Your task to perform on an android device: Open the Play Movies app and select the watchlist tab. Image 0: 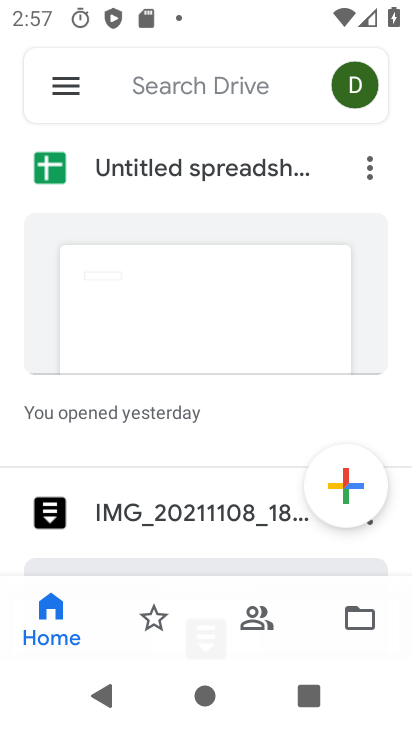
Step 0: press home button
Your task to perform on an android device: Open the Play Movies app and select the watchlist tab. Image 1: 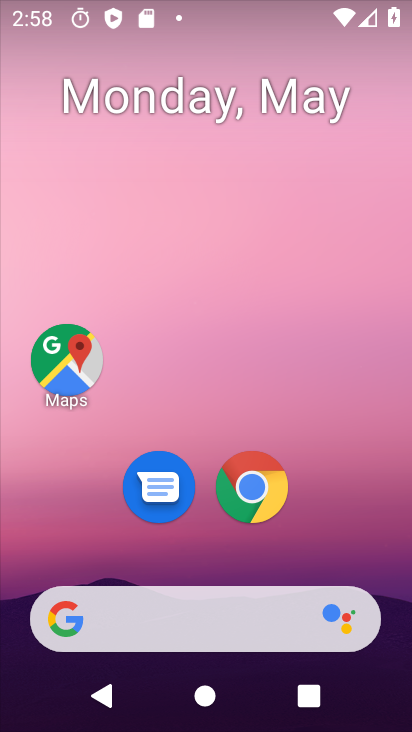
Step 1: drag from (212, 562) to (232, 57)
Your task to perform on an android device: Open the Play Movies app and select the watchlist tab. Image 2: 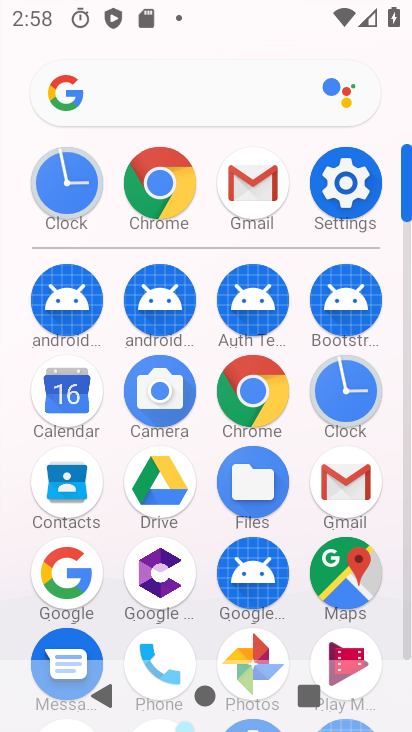
Step 2: drag from (322, 618) to (322, 394)
Your task to perform on an android device: Open the Play Movies app and select the watchlist tab. Image 3: 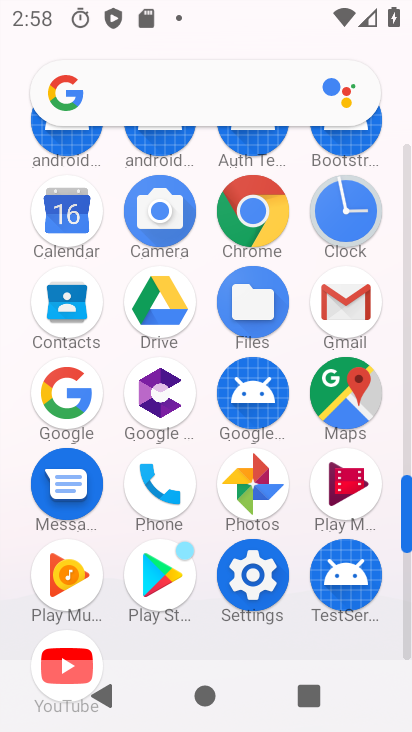
Step 3: click (356, 507)
Your task to perform on an android device: Open the Play Movies app and select the watchlist tab. Image 4: 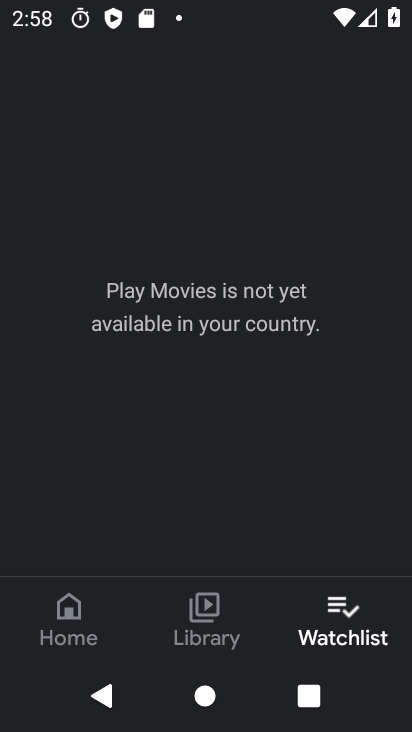
Step 4: task complete